Your task to perform on an android device: What's the weather? Image 0: 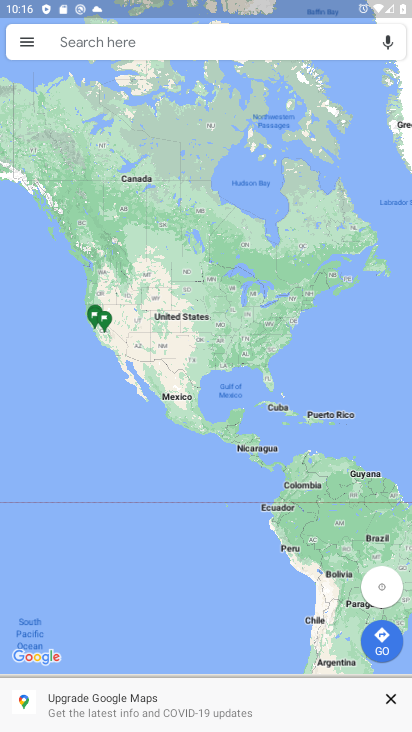
Step 0: press home button
Your task to perform on an android device: What's the weather? Image 1: 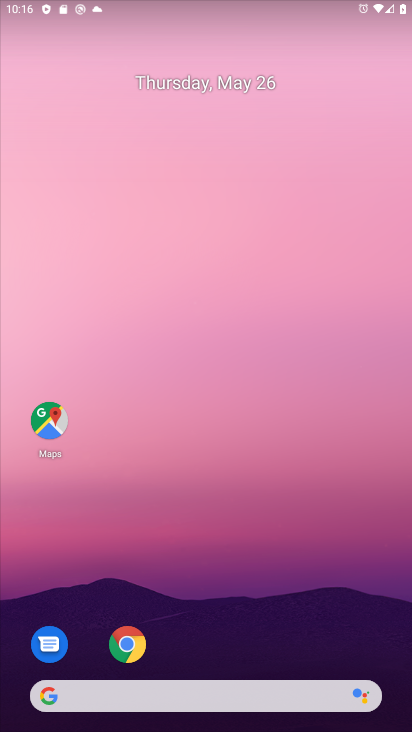
Step 1: click (213, 230)
Your task to perform on an android device: What's the weather? Image 2: 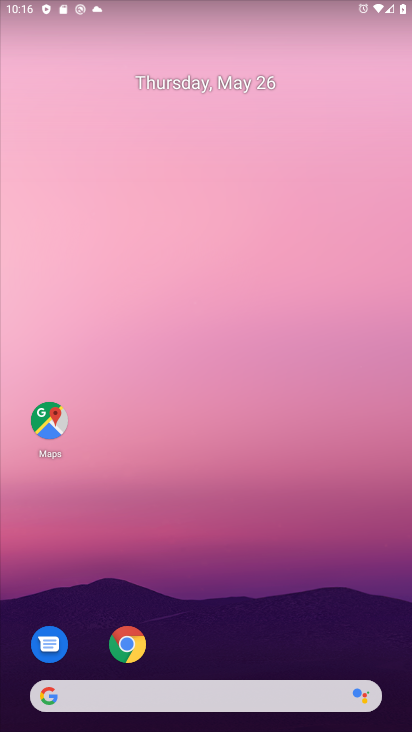
Step 2: drag from (209, 655) to (220, 174)
Your task to perform on an android device: What's the weather? Image 3: 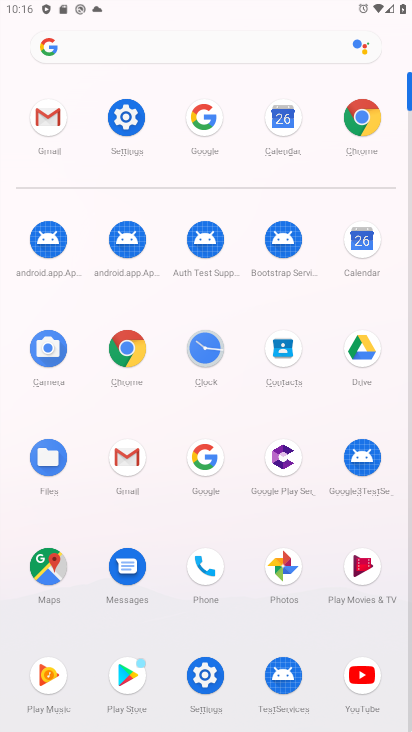
Step 3: click (206, 115)
Your task to perform on an android device: What's the weather? Image 4: 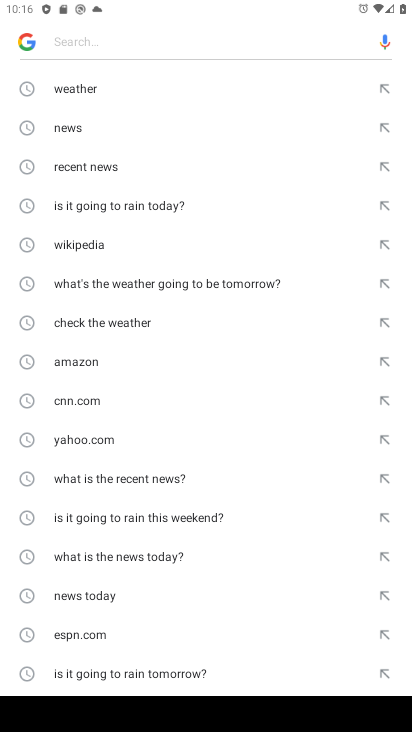
Step 4: click (76, 83)
Your task to perform on an android device: What's the weather? Image 5: 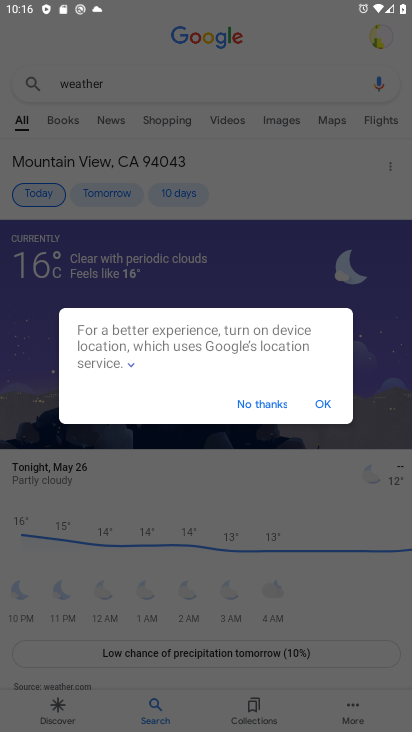
Step 5: click (271, 400)
Your task to perform on an android device: What's the weather? Image 6: 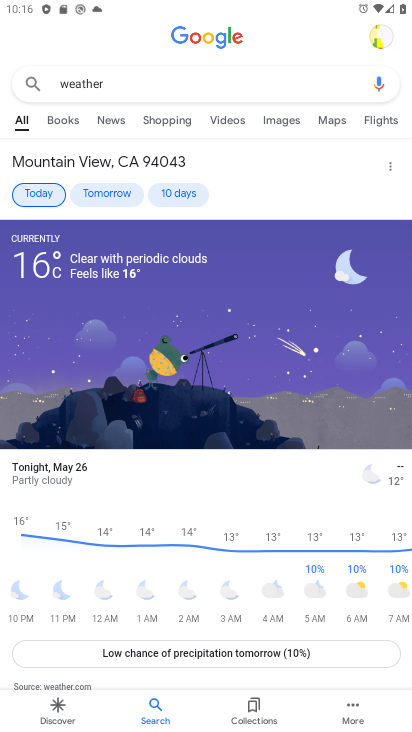
Step 6: task complete